Your task to perform on an android device: toggle notification dots Image 0: 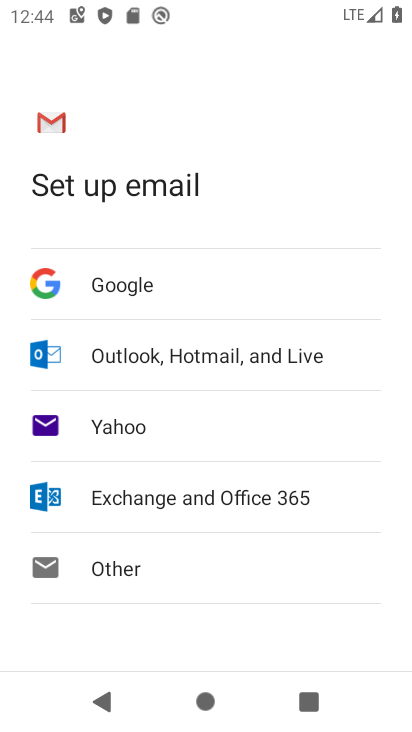
Step 0: press home button
Your task to perform on an android device: toggle notification dots Image 1: 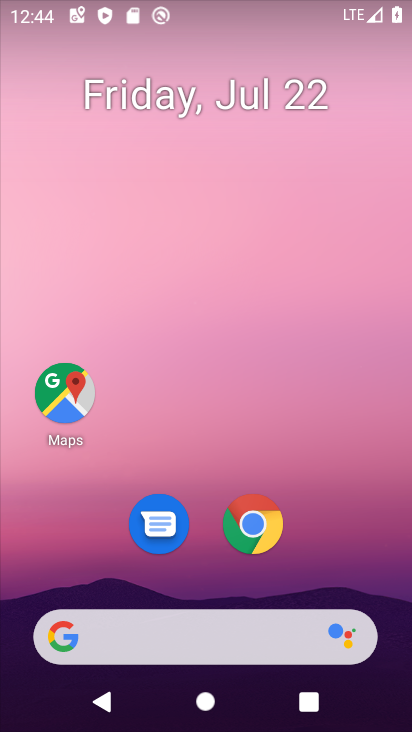
Step 1: drag from (327, 549) to (349, 43)
Your task to perform on an android device: toggle notification dots Image 2: 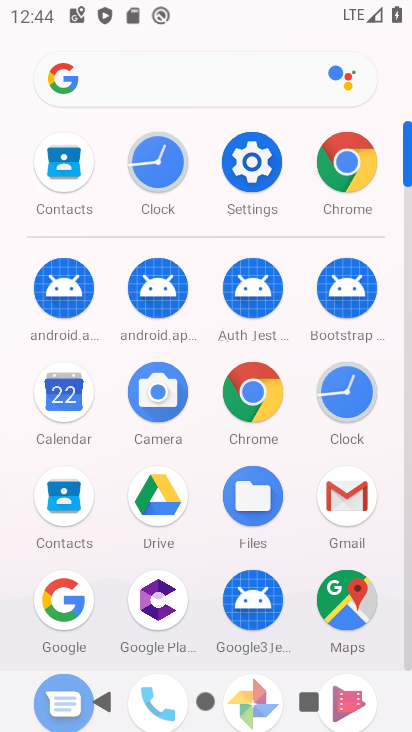
Step 2: click (252, 159)
Your task to perform on an android device: toggle notification dots Image 3: 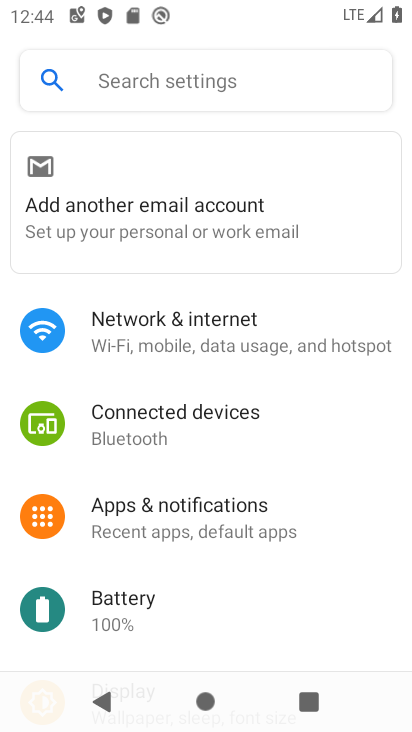
Step 3: click (211, 521)
Your task to perform on an android device: toggle notification dots Image 4: 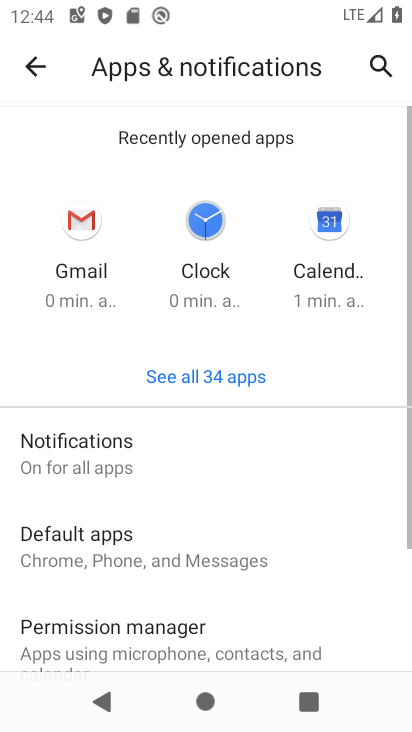
Step 4: click (110, 452)
Your task to perform on an android device: toggle notification dots Image 5: 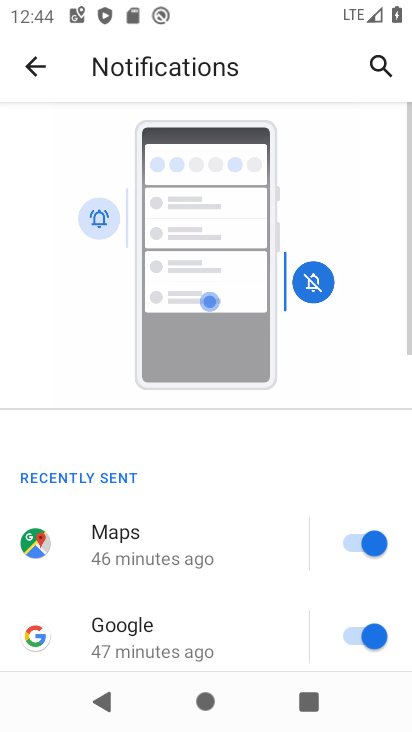
Step 5: drag from (242, 651) to (303, 75)
Your task to perform on an android device: toggle notification dots Image 6: 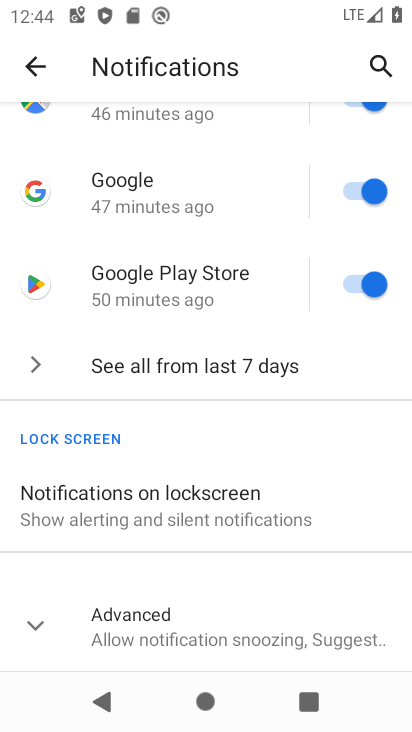
Step 6: click (31, 623)
Your task to perform on an android device: toggle notification dots Image 7: 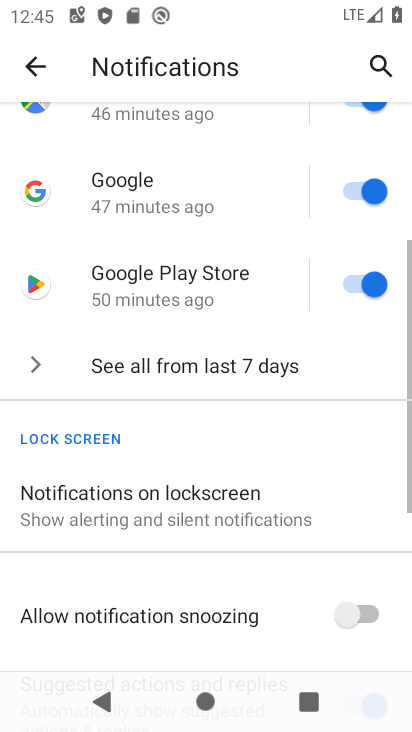
Step 7: drag from (221, 543) to (274, 96)
Your task to perform on an android device: toggle notification dots Image 8: 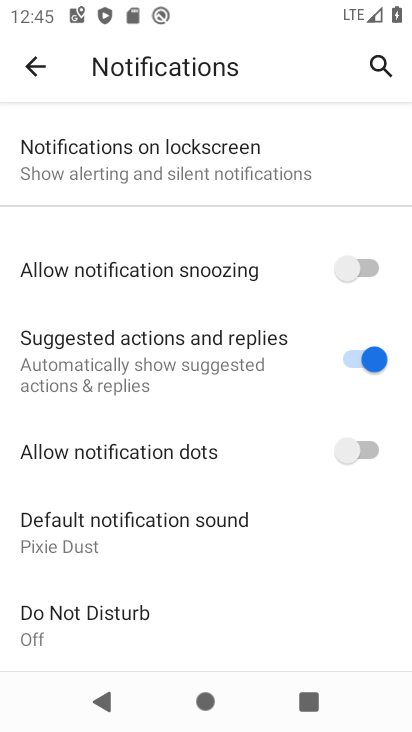
Step 8: click (356, 447)
Your task to perform on an android device: toggle notification dots Image 9: 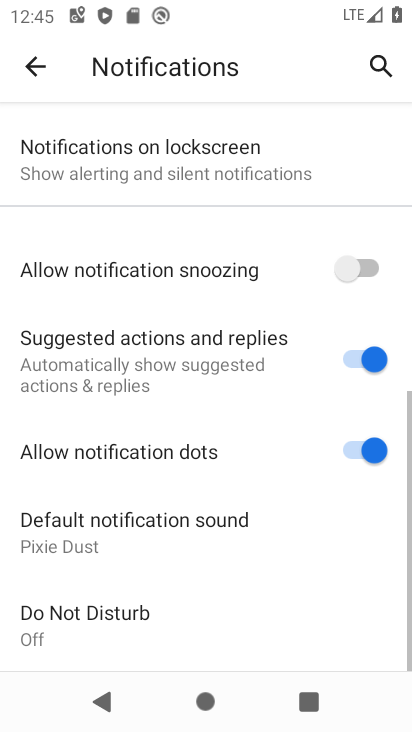
Step 9: task complete